Your task to perform on an android device: check the backup settings in the google photos Image 0: 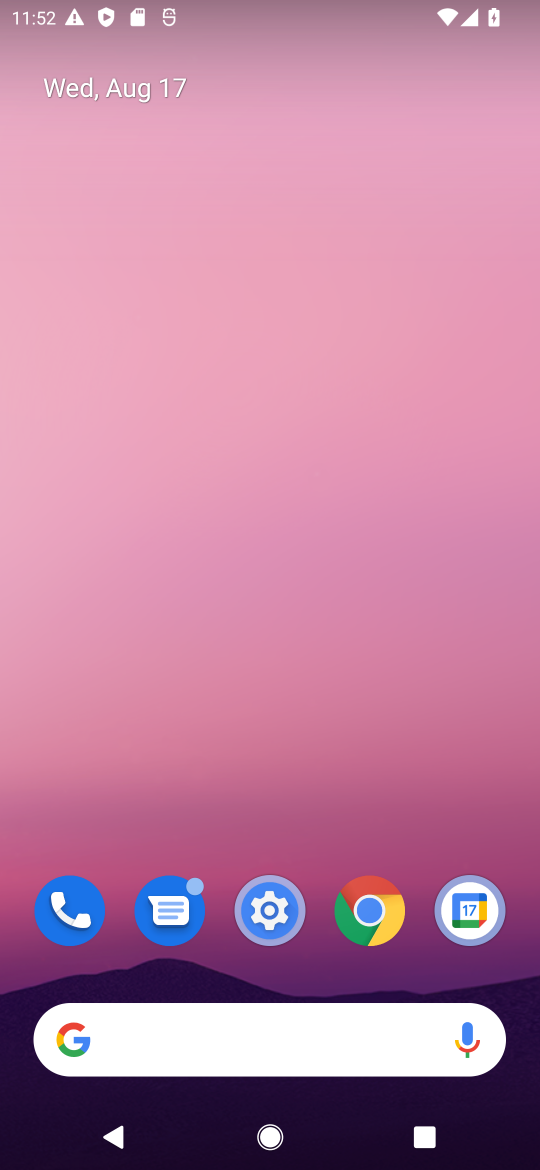
Step 0: drag from (284, 979) to (379, 127)
Your task to perform on an android device: check the backup settings in the google photos Image 1: 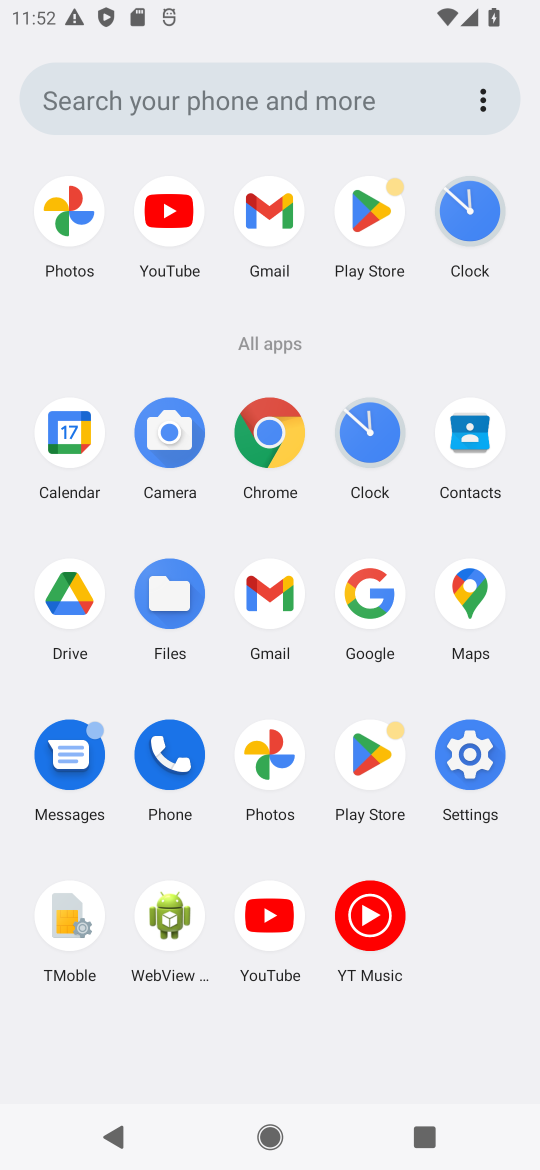
Step 1: click (264, 746)
Your task to perform on an android device: check the backup settings in the google photos Image 2: 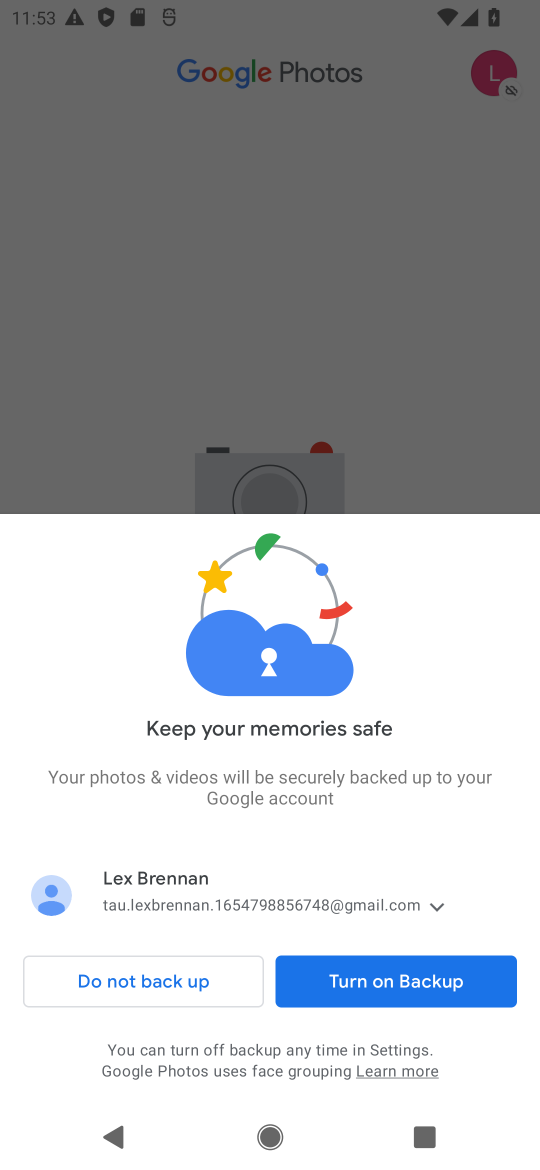
Step 2: click (167, 988)
Your task to perform on an android device: check the backup settings in the google photos Image 3: 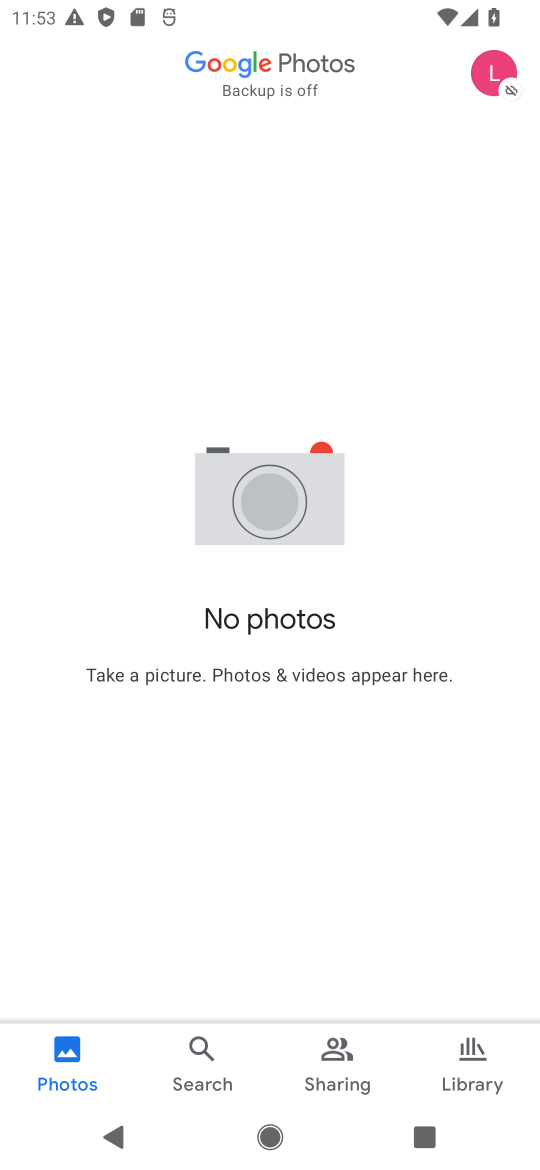
Step 3: click (486, 64)
Your task to perform on an android device: check the backup settings in the google photos Image 4: 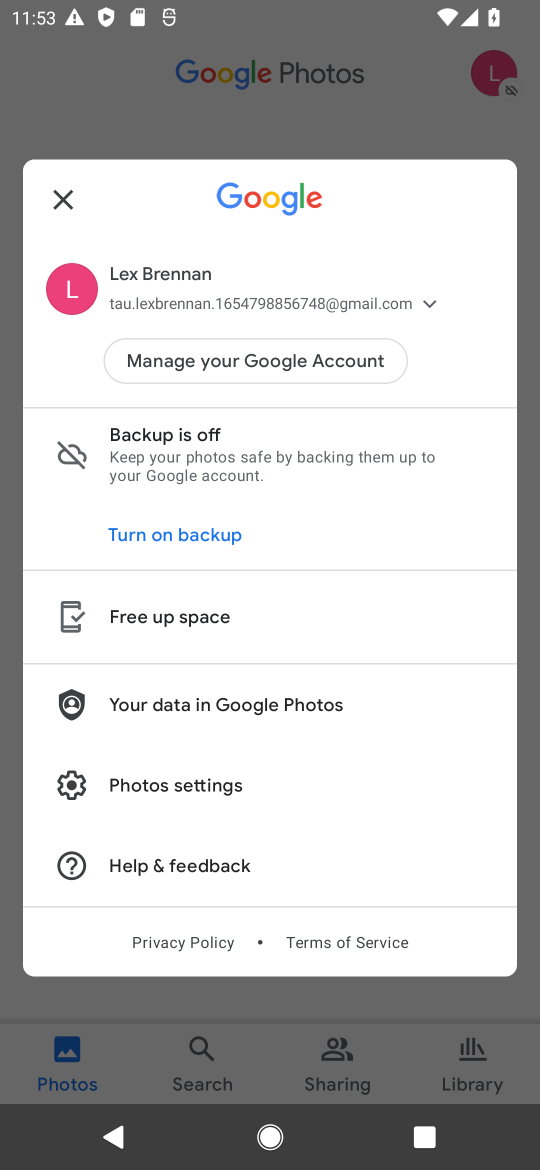
Step 4: click (232, 453)
Your task to perform on an android device: check the backup settings in the google photos Image 5: 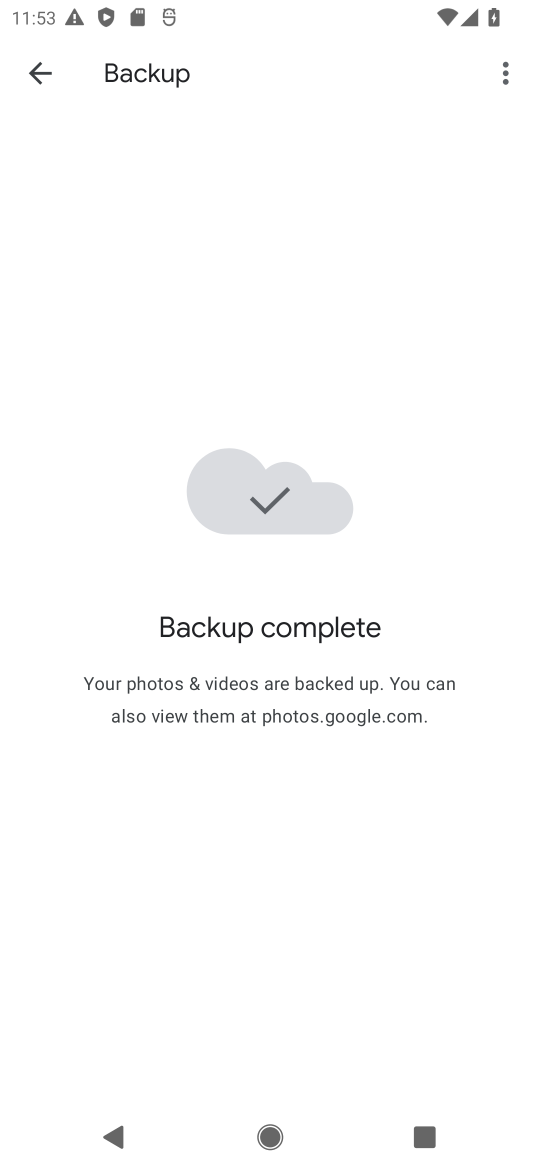
Step 5: task complete